Your task to perform on an android device: Search for bose soundsport free on costco, select the first entry, and add it to the cart. Image 0: 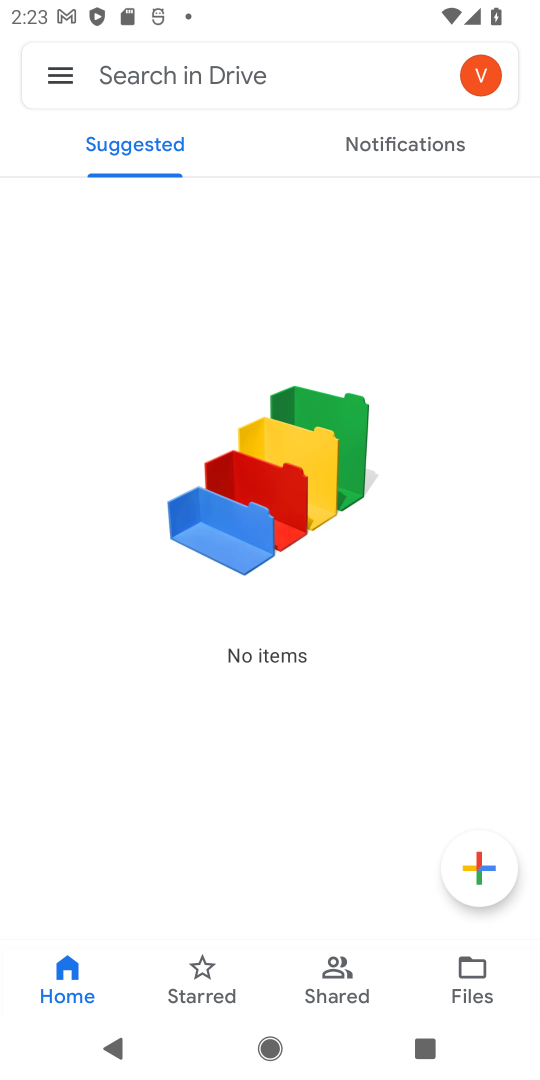
Step 0: press home button
Your task to perform on an android device: Search for bose soundsport free on costco, select the first entry, and add it to the cart. Image 1: 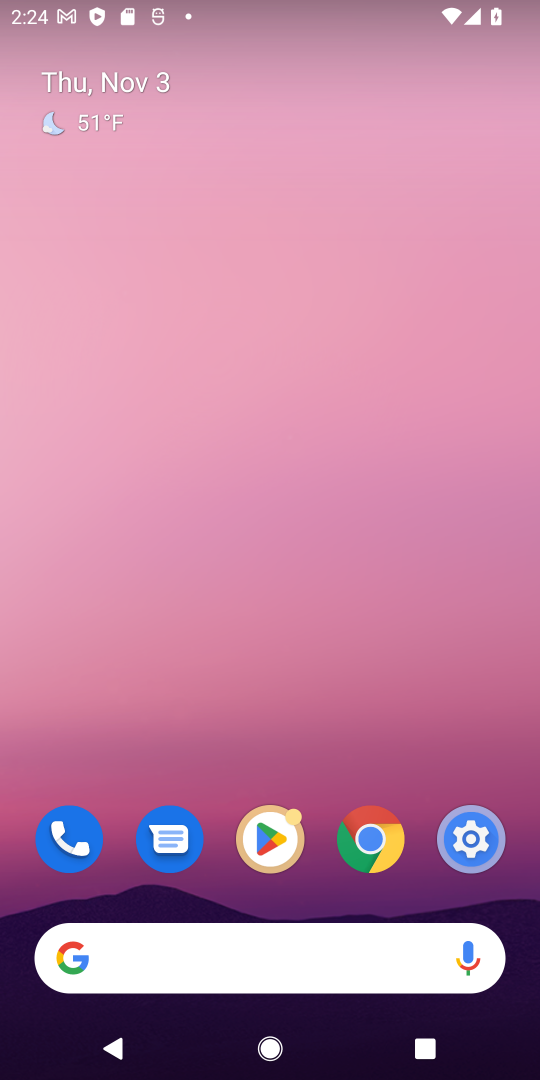
Step 1: press home button
Your task to perform on an android device: Search for bose soundsport free on costco, select the first entry, and add it to the cart. Image 2: 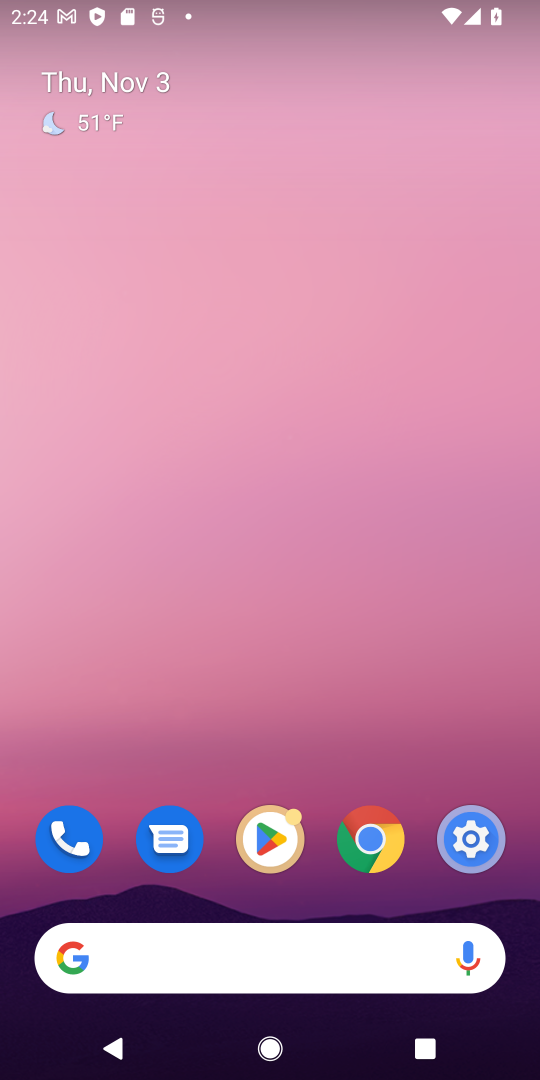
Step 2: type "costco"
Your task to perform on an android device: Search for bose soundsport free on costco, select the first entry, and add it to the cart. Image 3: 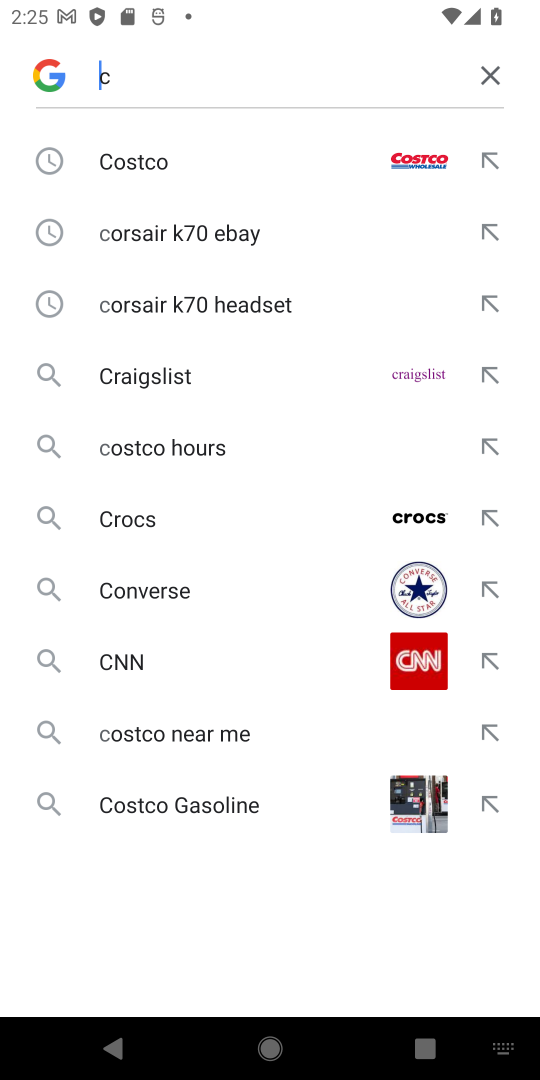
Step 3: task complete